Your task to perform on an android device: toggle notifications settings in the gmail app Image 0: 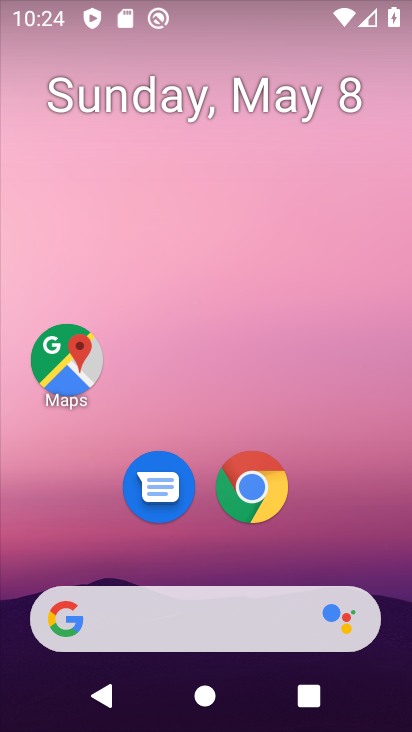
Step 0: drag from (206, 493) to (265, 104)
Your task to perform on an android device: toggle notifications settings in the gmail app Image 1: 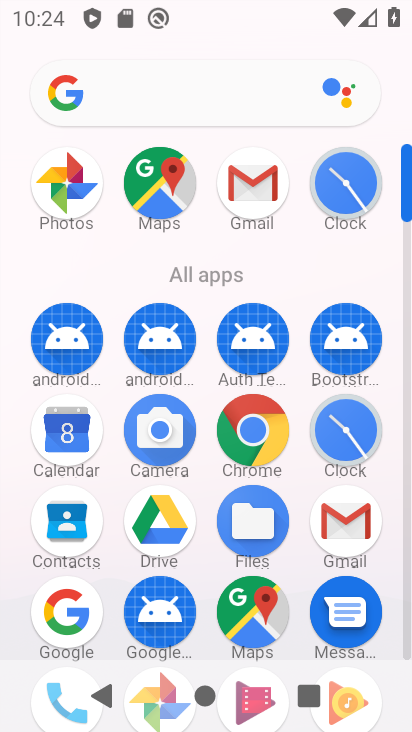
Step 1: click (252, 188)
Your task to perform on an android device: toggle notifications settings in the gmail app Image 2: 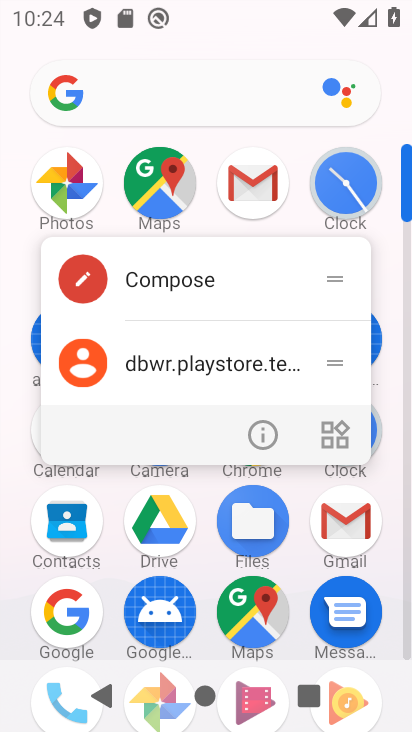
Step 2: click (277, 415)
Your task to perform on an android device: toggle notifications settings in the gmail app Image 3: 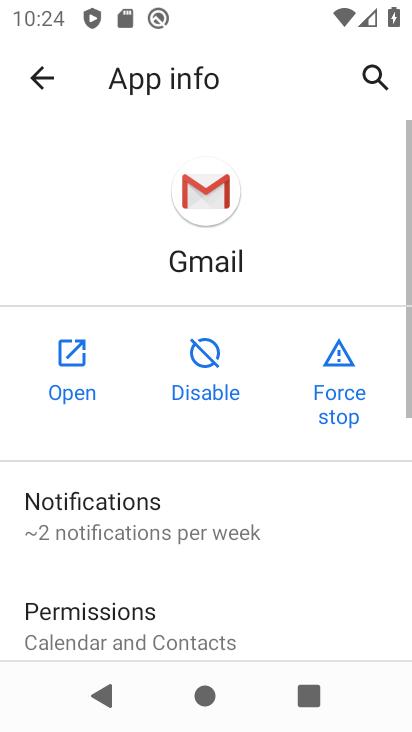
Step 3: click (127, 526)
Your task to perform on an android device: toggle notifications settings in the gmail app Image 4: 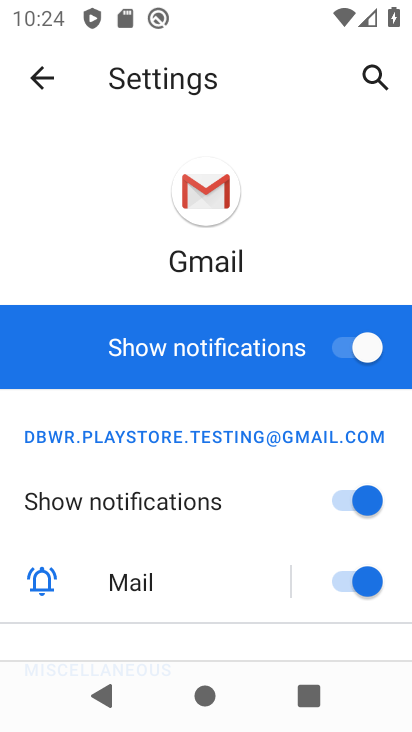
Step 4: task complete